Your task to perform on an android device: Open Wikipedia Image 0: 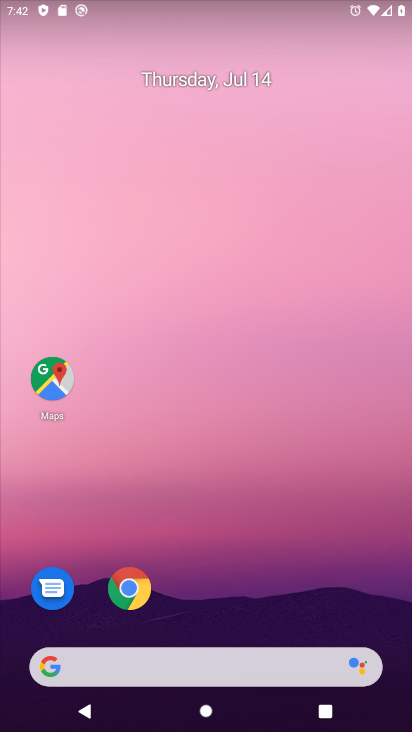
Step 0: click (111, 681)
Your task to perform on an android device: Open Wikipedia Image 1: 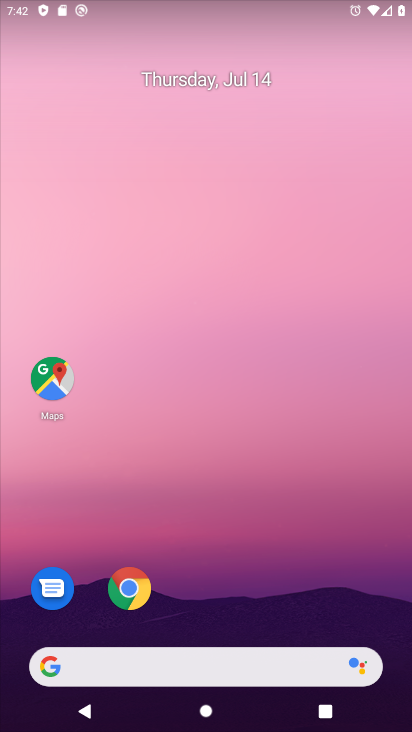
Step 1: click (106, 655)
Your task to perform on an android device: Open Wikipedia Image 2: 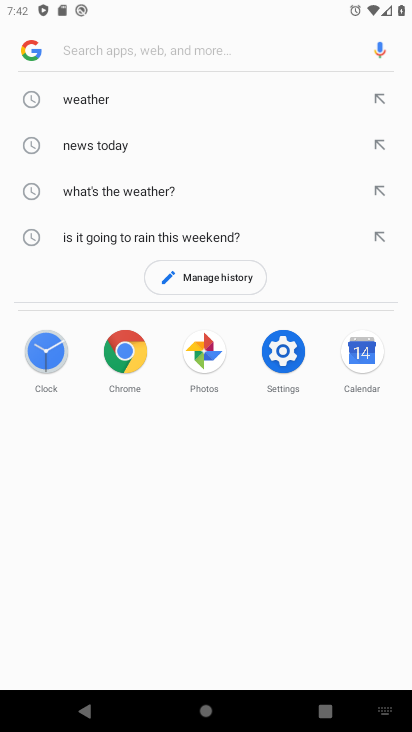
Step 2: click (95, 41)
Your task to perform on an android device: Open Wikipedia Image 3: 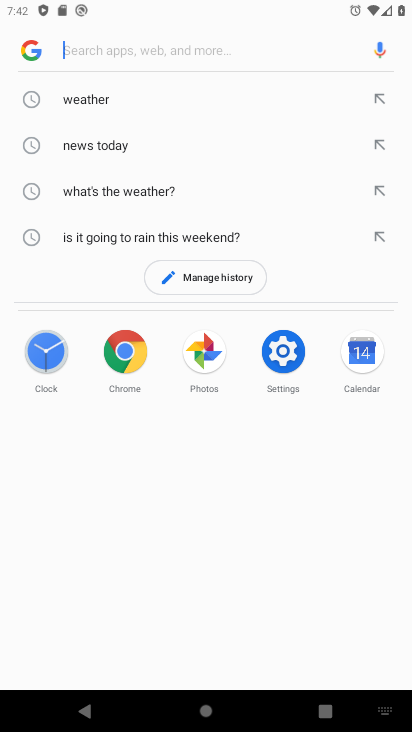
Step 3: type "Wikipedia"
Your task to perform on an android device: Open Wikipedia Image 4: 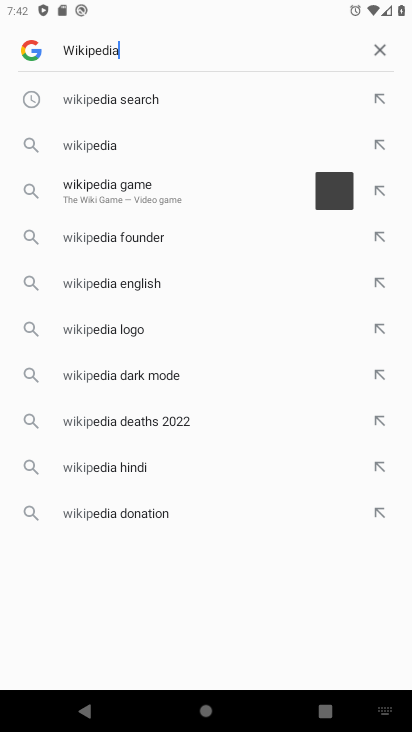
Step 4: type ""
Your task to perform on an android device: Open Wikipedia Image 5: 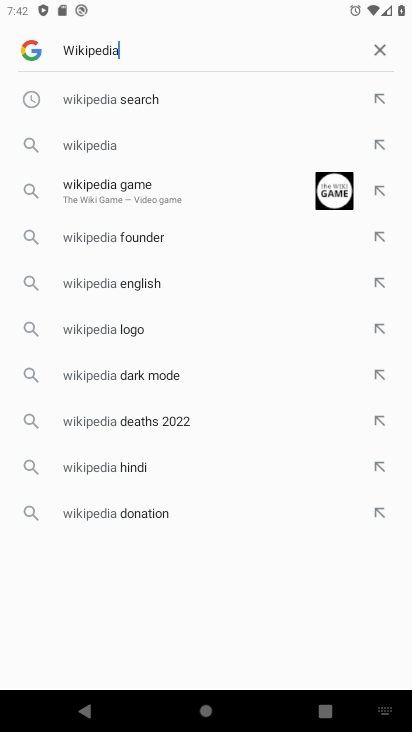
Step 5: click (93, 98)
Your task to perform on an android device: Open Wikipedia Image 6: 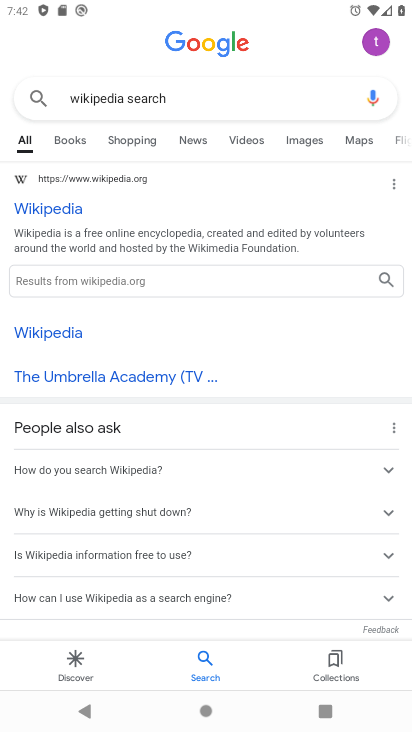
Step 6: task complete